Your task to perform on an android device: Play the last video I watched on Youtube Image 0: 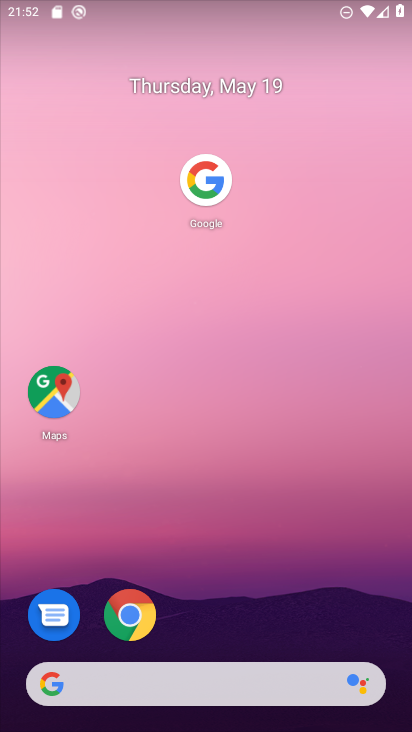
Step 0: drag from (213, 591) to (239, 86)
Your task to perform on an android device: Play the last video I watched on Youtube Image 1: 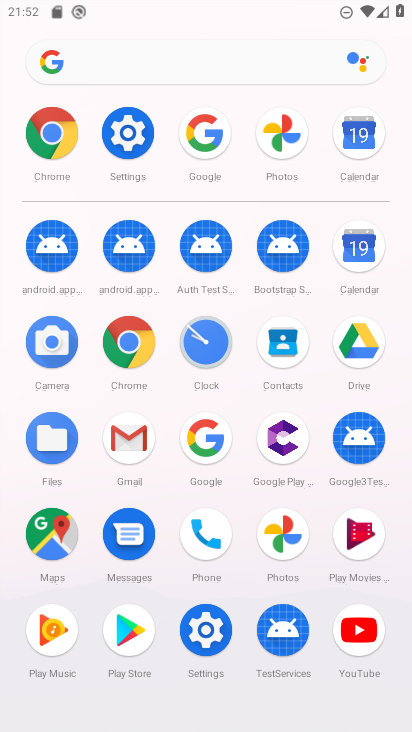
Step 1: click (355, 631)
Your task to perform on an android device: Play the last video I watched on Youtube Image 2: 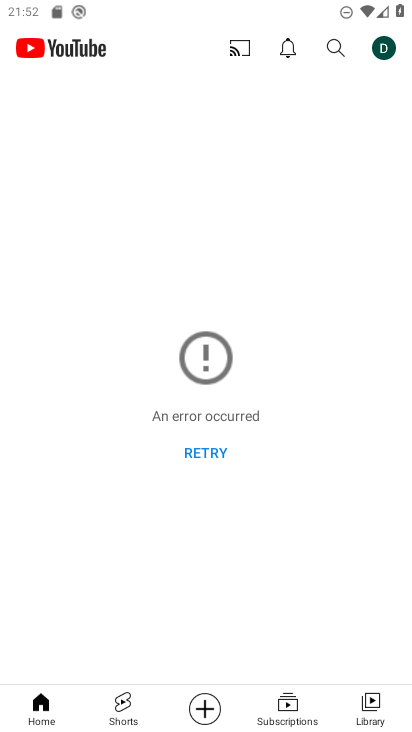
Step 2: click (334, 37)
Your task to perform on an android device: Play the last video I watched on Youtube Image 3: 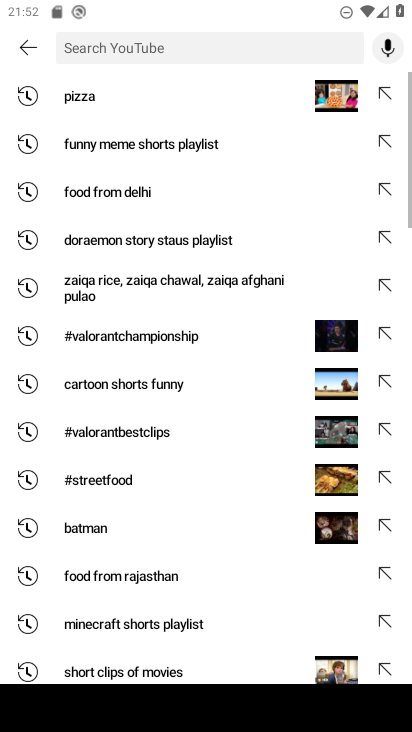
Step 3: click (91, 102)
Your task to perform on an android device: Play the last video I watched on Youtube Image 4: 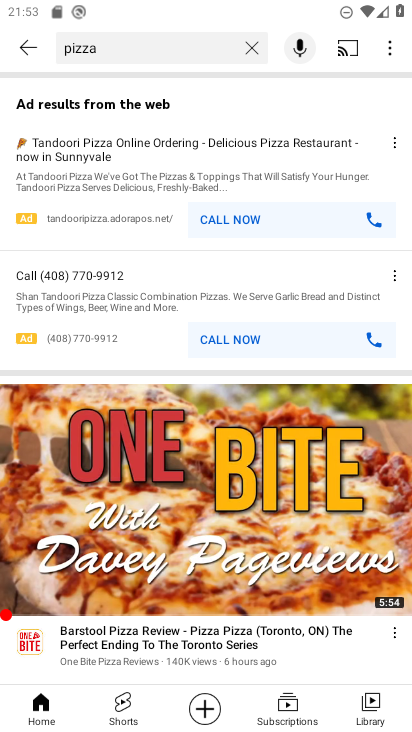
Step 4: click (159, 512)
Your task to perform on an android device: Play the last video I watched on Youtube Image 5: 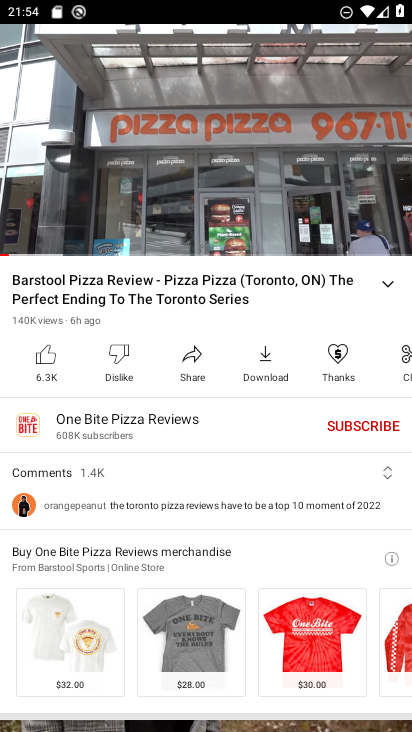
Step 5: task complete